Your task to perform on an android device: Open Maps and search for coffee Image 0: 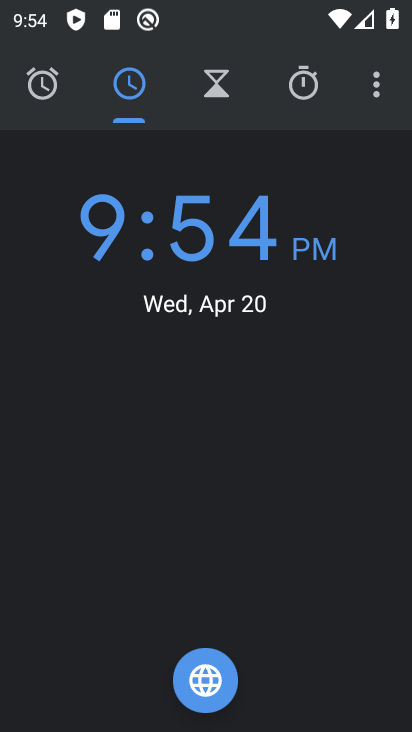
Step 0: press back button
Your task to perform on an android device: Open Maps and search for coffee Image 1: 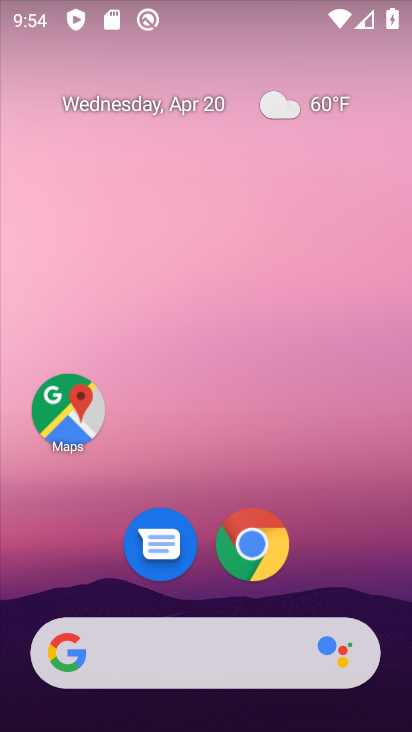
Step 1: click (66, 406)
Your task to perform on an android device: Open Maps and search for coffee Image 2: 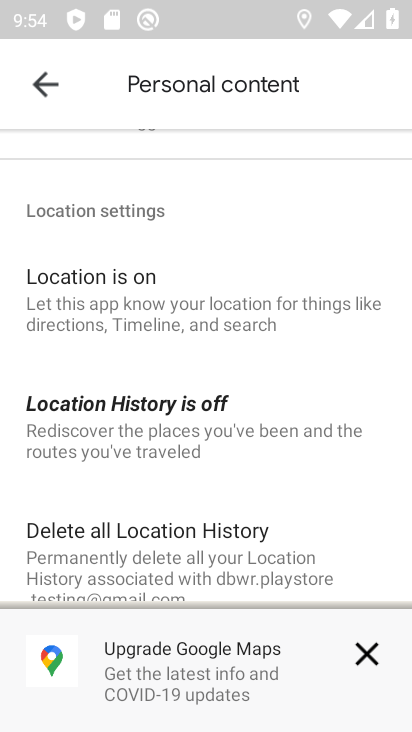
Step 2: click (44, 70)
Your task to perform on an android device: Open Maps and search for coffee Image 3: 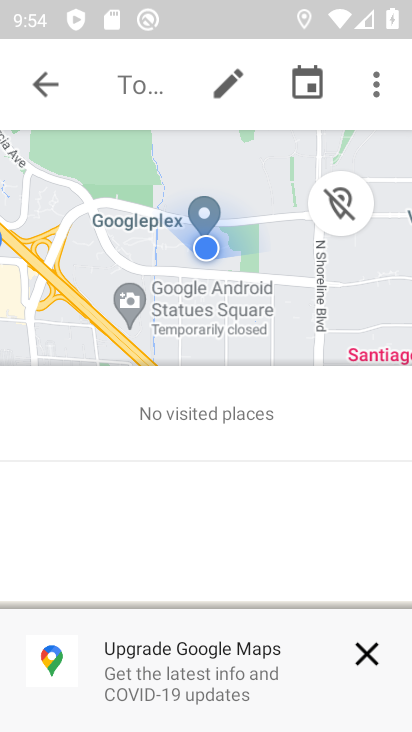
Step 3: click (48, 87)
Your task to perform on an android device: Open Maps and search for coffee Image 4: 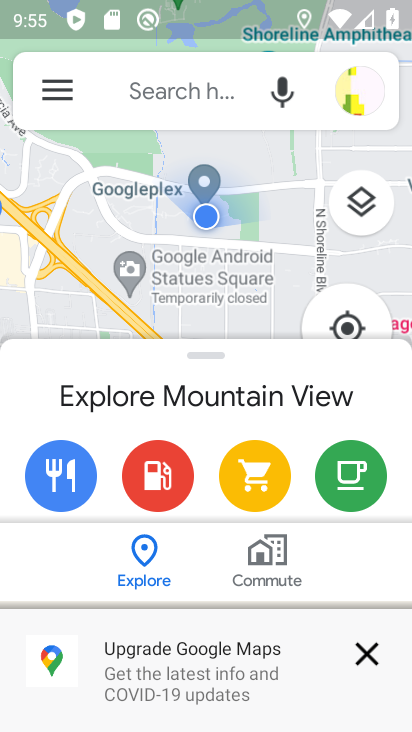
Step 4: click (173, 94)
Your task to perform on an android device: Open Maps and search for coffee Image 5: 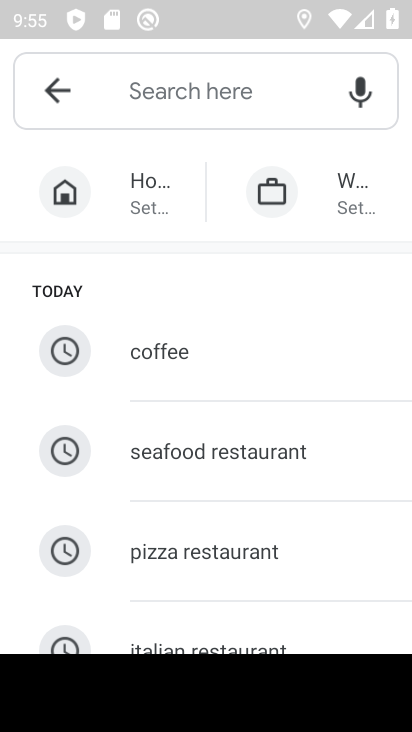
Step 5: click (259, 343)
Your task to perform on an android device: Open Maps and search for coffee Image 6: 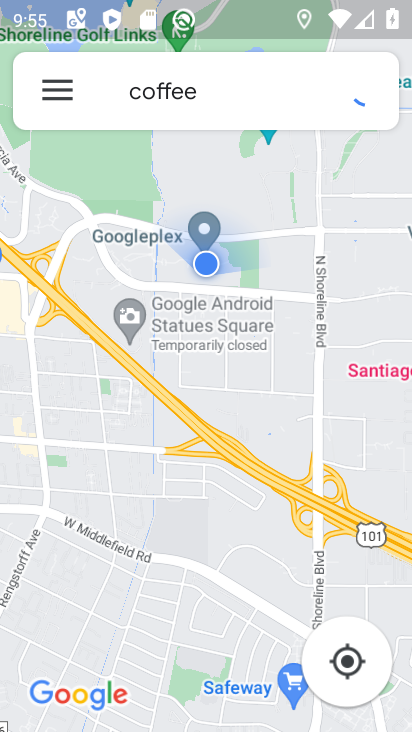
Step 6: task complete